Your task to perform on an android device: Open calendar and show me the first week of next month Image 0: 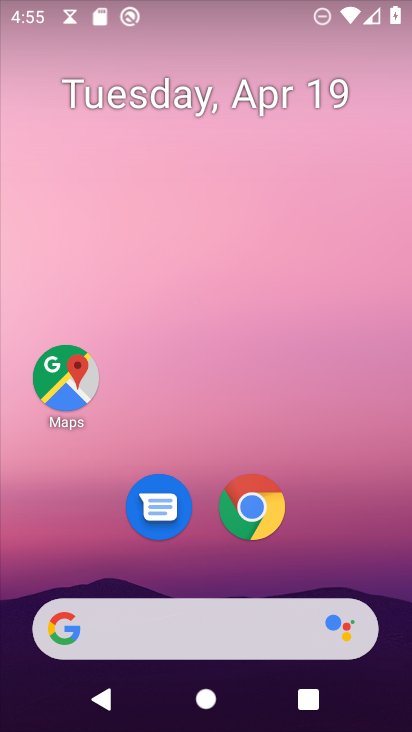
Step 0: drag from (337, 506) to (299, 0)
Your task to perform on an android device: Open calendar and show me the first week of next month Image 1: 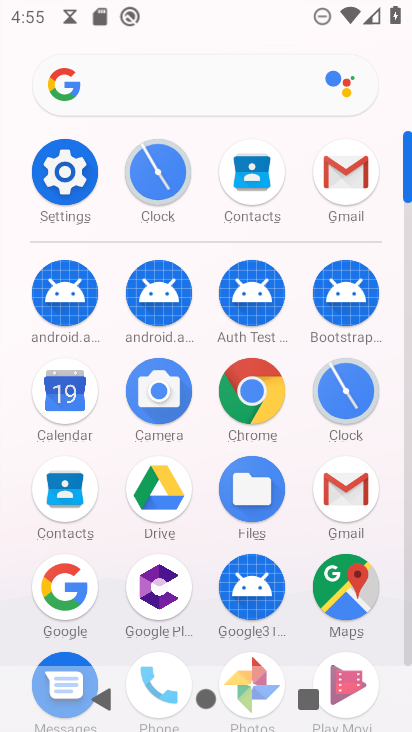
Step 1: click (54, 391)
Your task to perform on an android device: Open calendar and show me the first week of next month Image 2: 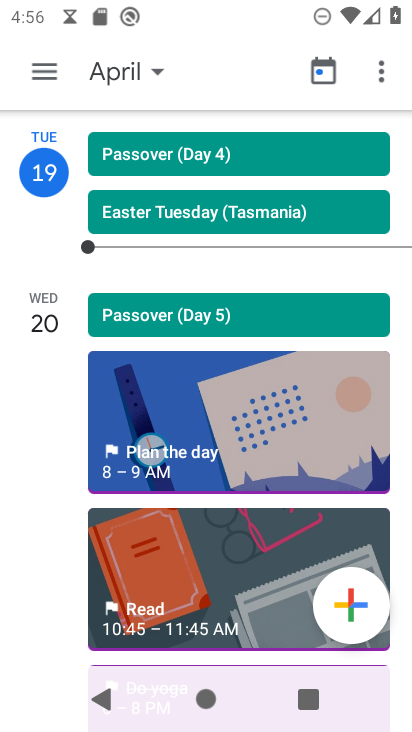
Step 2: click (95, 73)
Your task to perform on an android device: Open calendar and show me the first week of next month Image 3: 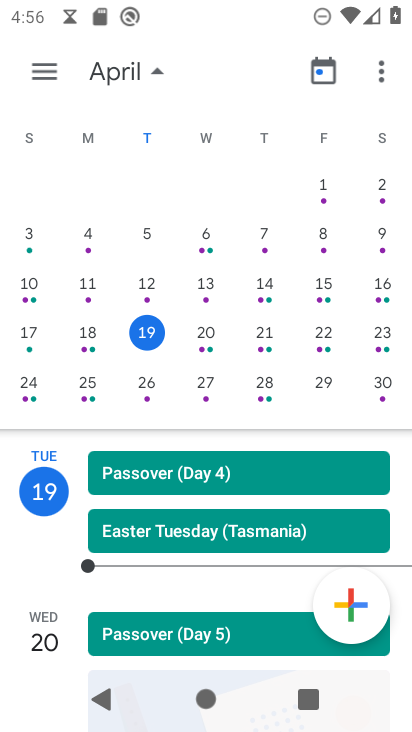
Step 3: drag from (326, 322) to (7, 335)
Your task to perform on an android device: Open calendar and show me the first week of next month Image 4: 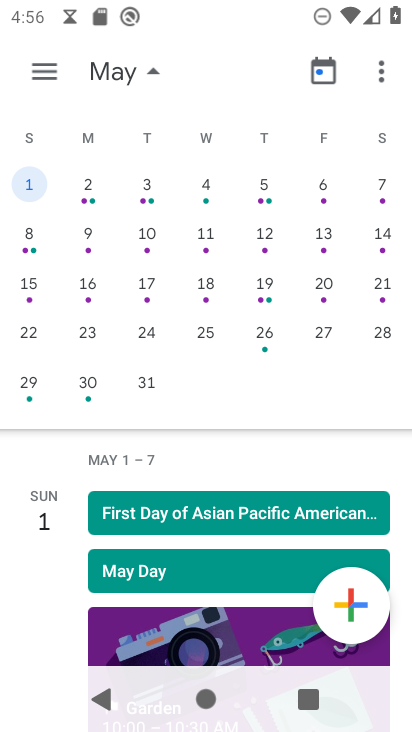
Step 4: click (43, 192)
Your task to perform on an android device: Open calendar and show me the first week of next month Image 5: 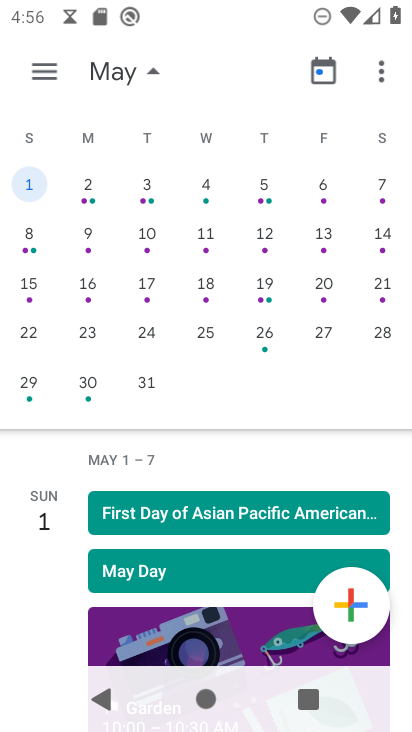
Step 5: task complete